Your task to perform on an android device: toggle improve location accuracy Image 0: 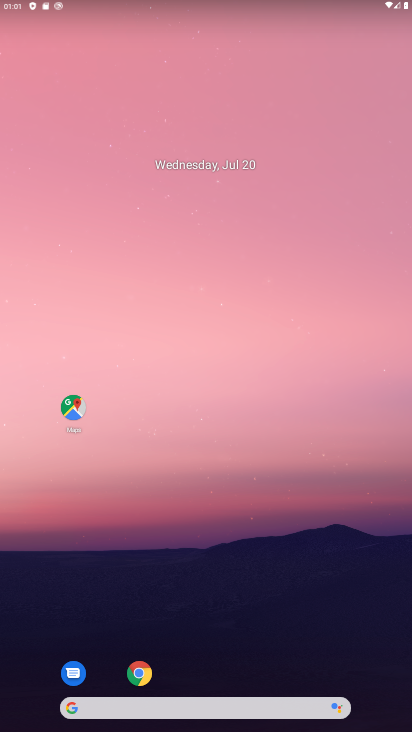
Step 0: drag from (204, 656) to (263, 162)
Your task to perform on an android device: toggle improve location accuracy Image 1: 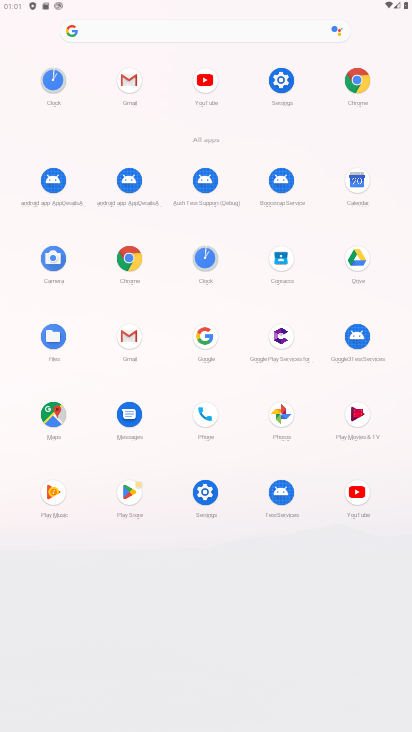
Step 1: click (199, 487)
Your task to perform on an android device: toggle improve location accuracy Image 2: 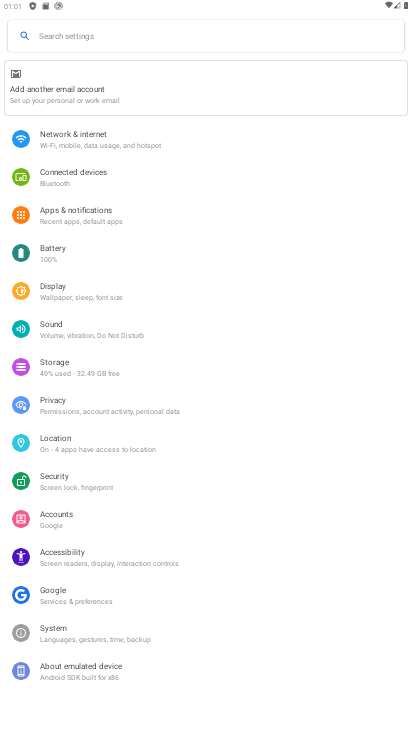
Step 2: click (76, 444)
Your task to perform on an android device: toggle improve location accuracy Image 3: 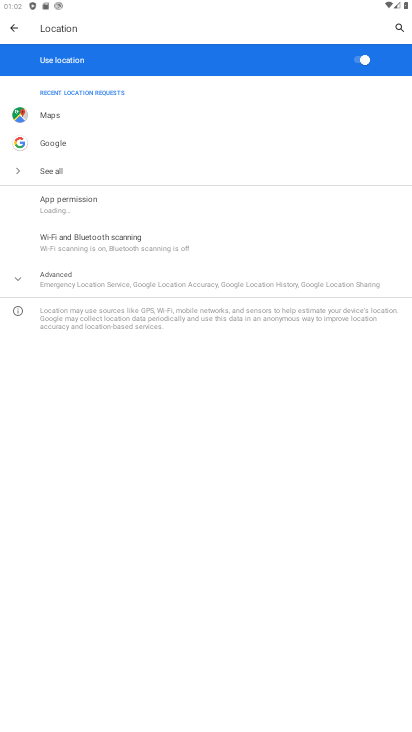
Step 3: click (95, 285)
Your task to perform on an android device: toggle improve location accuracy Image 4: 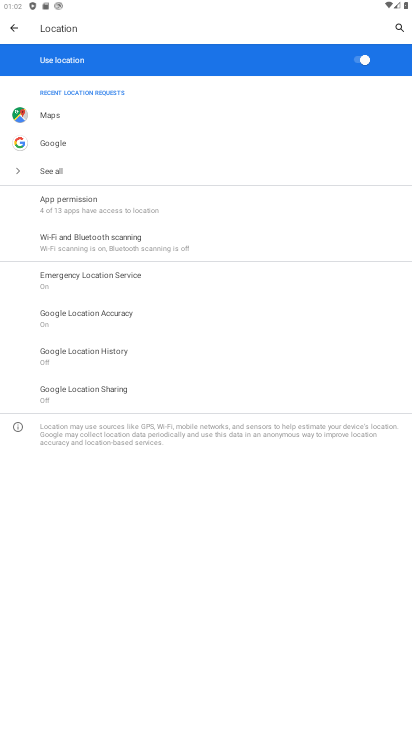
Step 4: click (126, 322)
Your task to perform on an android device: toggle improve location accuracy Image 5: 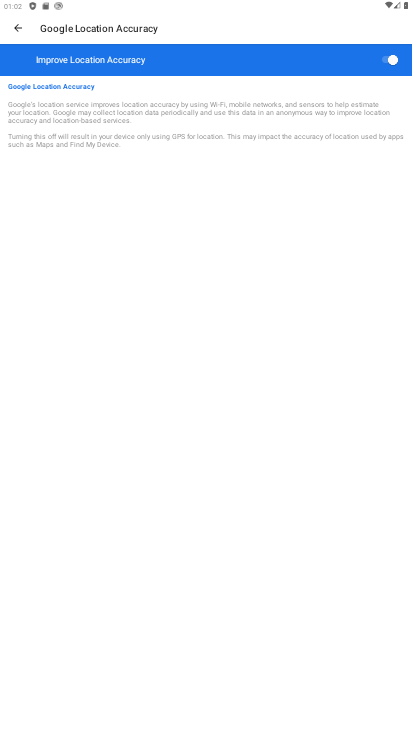
Step 5: task complete